Your task to perform on an android device: Search for a new nail polish Image 0: 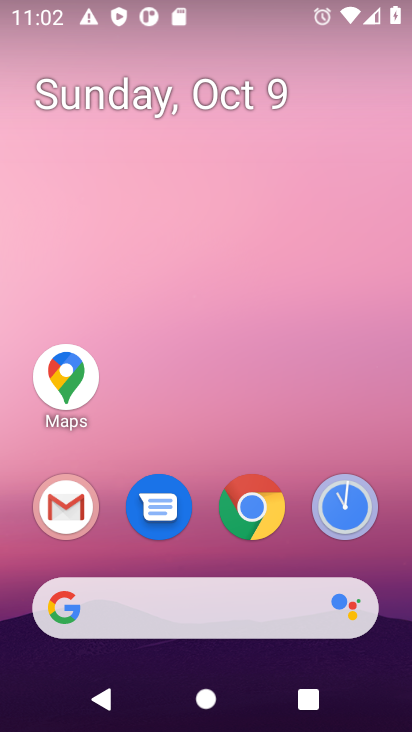
Step 0: click (223, 624)
Your task to perform on an android device: Search for a new nail polish Image 1: 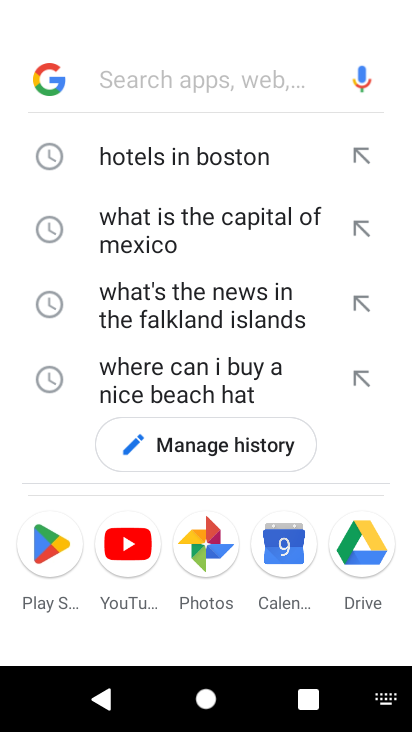
Step 1: type "new nail polish"
Your task to perform on an android device: Search for a new nail polish Image 2: 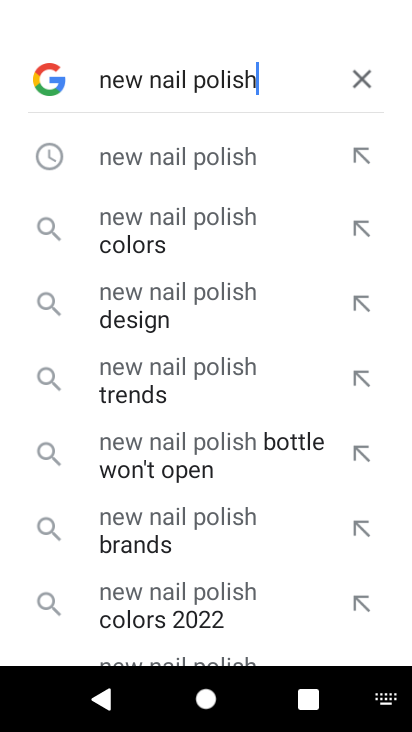
Step 2: press enter
Your task to perform on an android device: Search for a new nail polish Image 3: 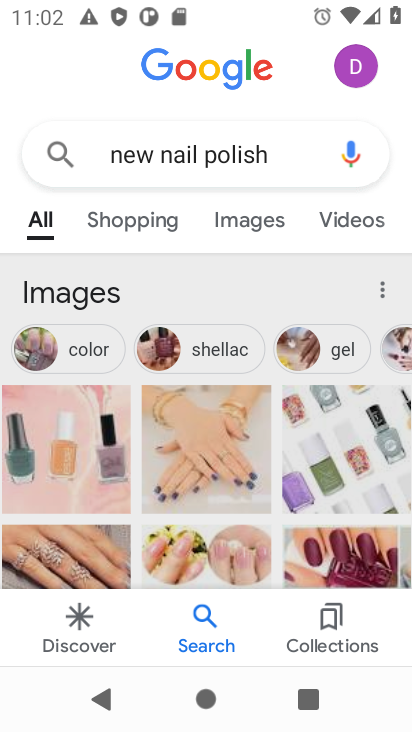
Step 3: task complete